Your task to perform on an android device: Open battery settings Image 0: 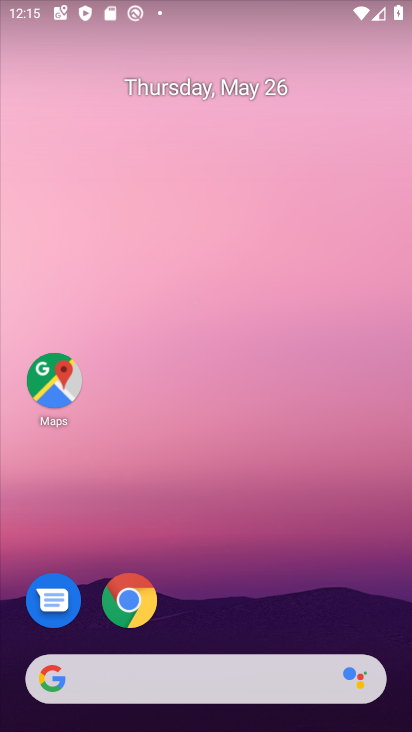
Step 0: drag from (254, 610) to (216, 193)
Your task to perform on an android device: Open battery settings Image 1: 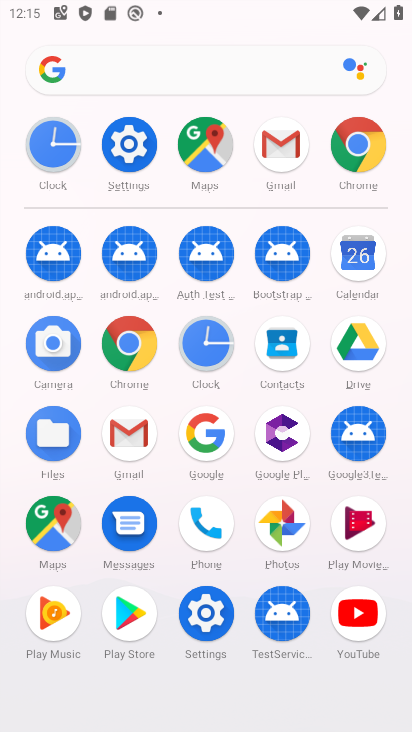
Step 1: click (122, 143)
Your task to perform on an android device: Open battery settings Image 2: 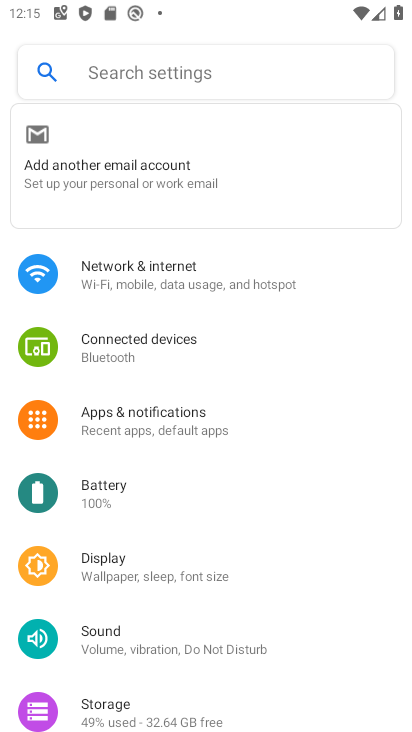
Step 2: click (167, 504)
Your task to perform on an android device: Open battery settings Image 3: 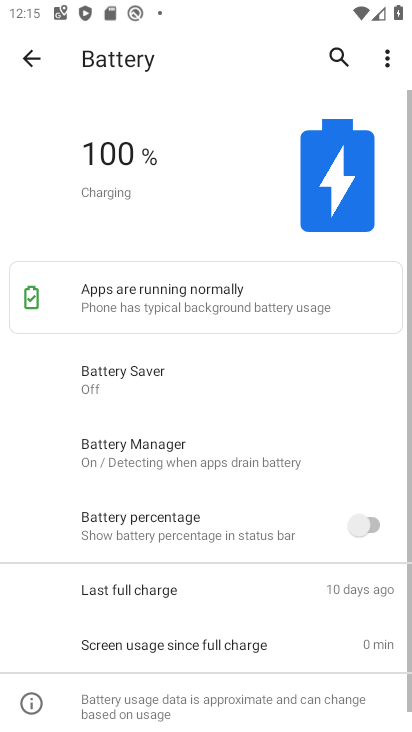
Step 3: task complete